Your task to perform on an android device: find snoozed emails in the gmail app Image 0: 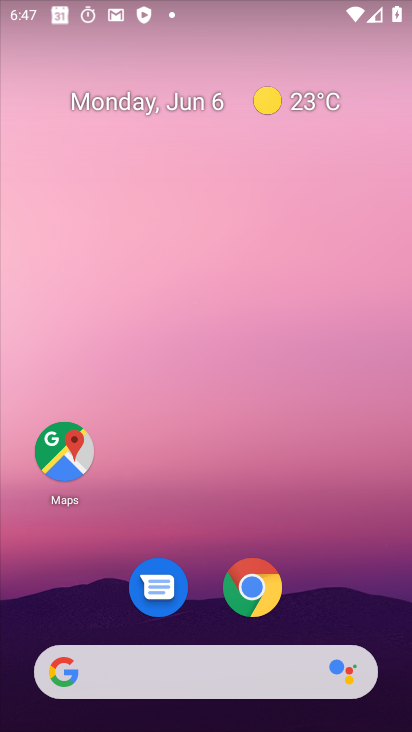
Step 0: drag from (391, 669) to (298, 41)
Your task to perform on an android device: find snoozed emails in the gmail app Image 1: 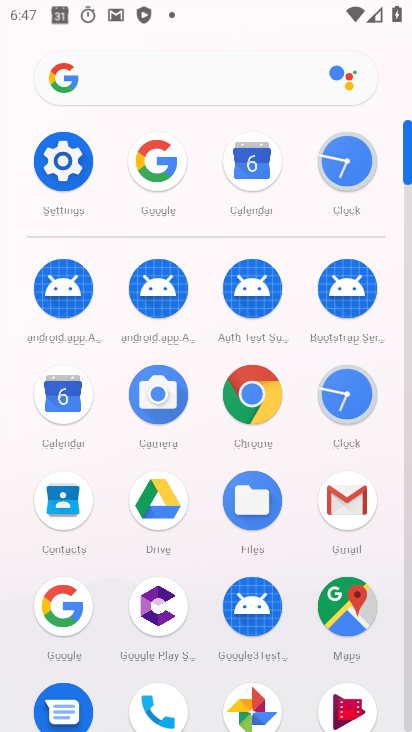
Step 1: click (347, 511)
Your task to perform on an android device: find snoozed emails in the gmail app Image 2: 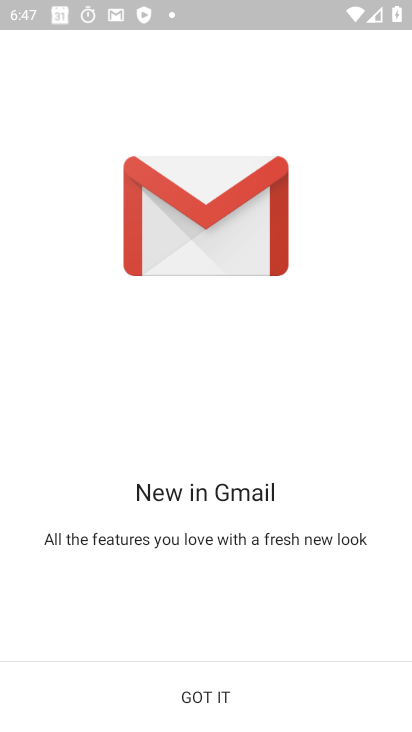
Step 2: click (108, 691)
Your task to perform on an android device: find snoozed emails in the gmail app Image 3: 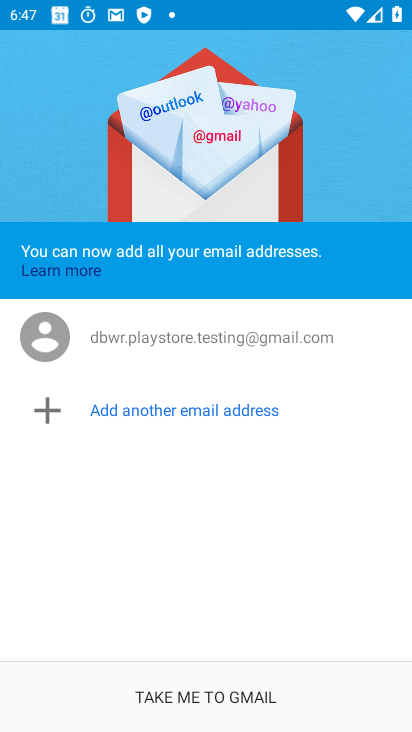
Step 3: click (181, 700)
Your task to perform on an android device: find snoozed emails in the gmail app Image 4: 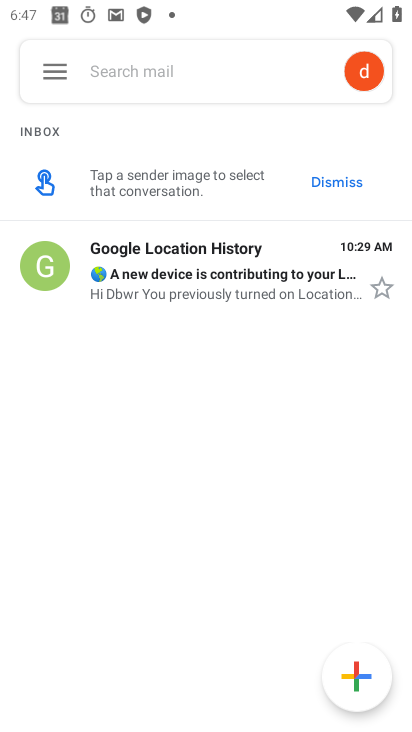
Step 4: click (44, 68)
Your task to perform on an android device: find snoozed emails in the gmail app Image 5: 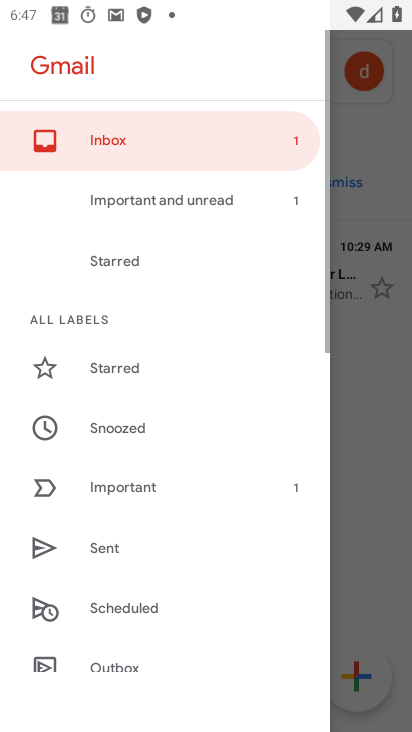
Step 5: click (161, 429)
Your task to perform on an android device: find snoozed emails in the gmail app Image 6: 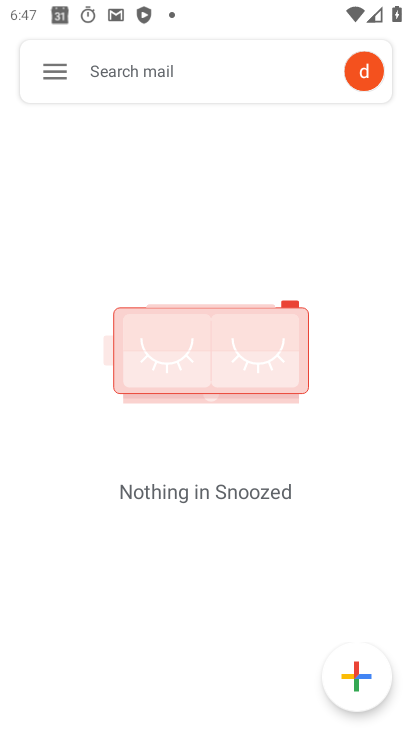
Step 6: task complete